Your task to perform on an android device: see tabs open on other devices in the chrome app Image 0: 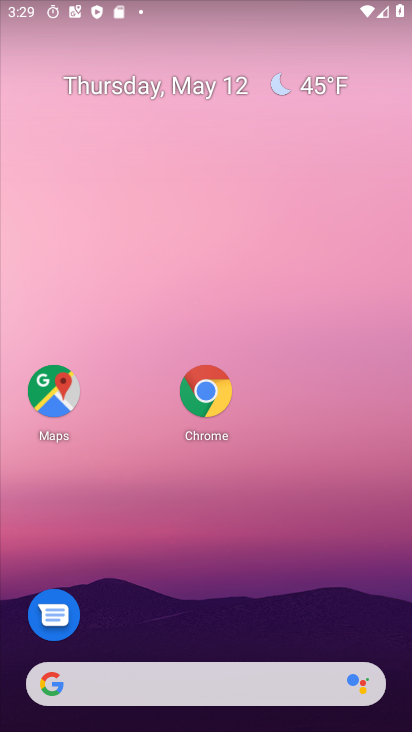
Step 0: click (204, 387)
Your task to perform on an android device: see tabs open on other devices in the chrome app Image 1: 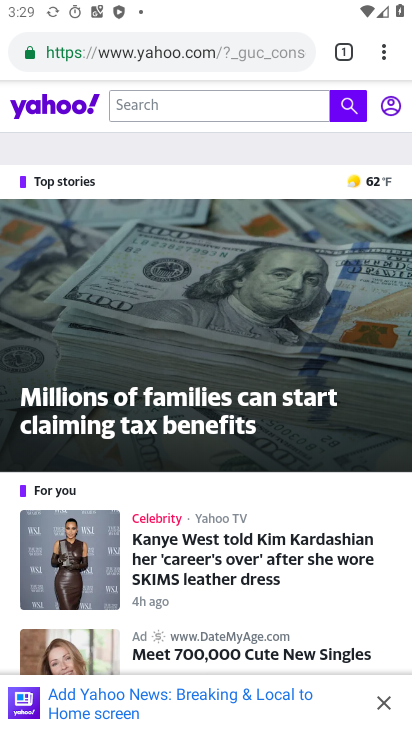
Step 1: click (344, 49)
Your task to perform on an android device: see tabs open on other devices in the chrome app Image 2: 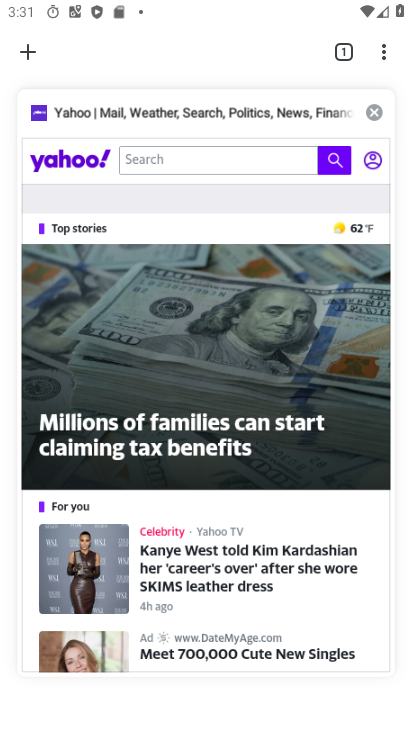
Step 2: task complete